Your task to perform on an android device: add a contact in the contacts app Image 0: 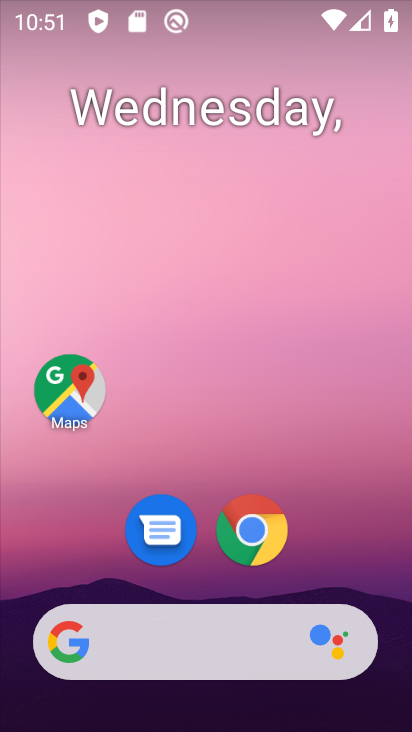
Step 0: drag from (165, 583) to (368, 2)
Your task to perform on an android device: add a contact in the contacts app Image 1: 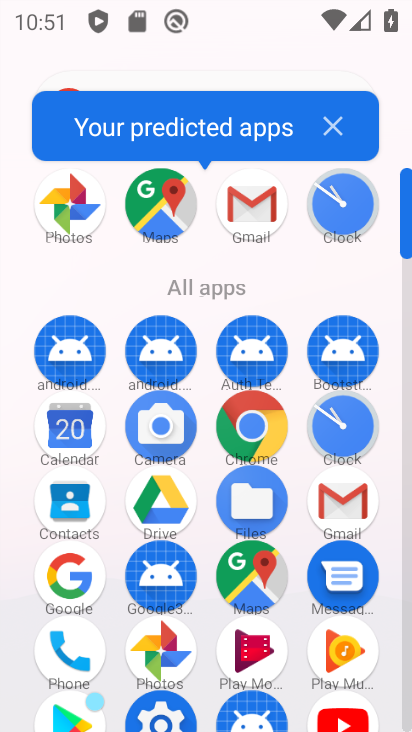
Step 1: click (81, 517)
Your task to perform on an android device: add a contact in the contacts app Image 2: 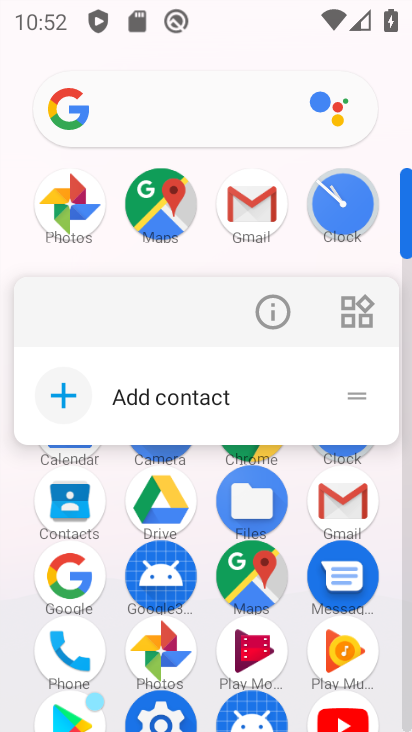
Step 2: click (94, 519)
Your task to perform on an android device: add a contact in the contacts app Image 3: 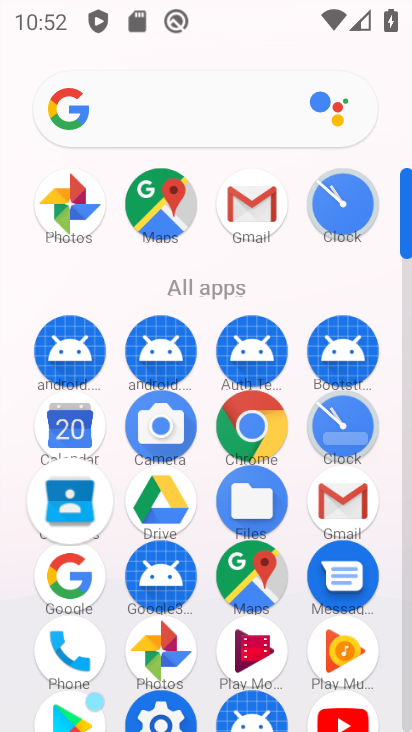
Step 3: click (90, 517)
Your task to perform on an android device: add a contact in the contacts app Image 4: 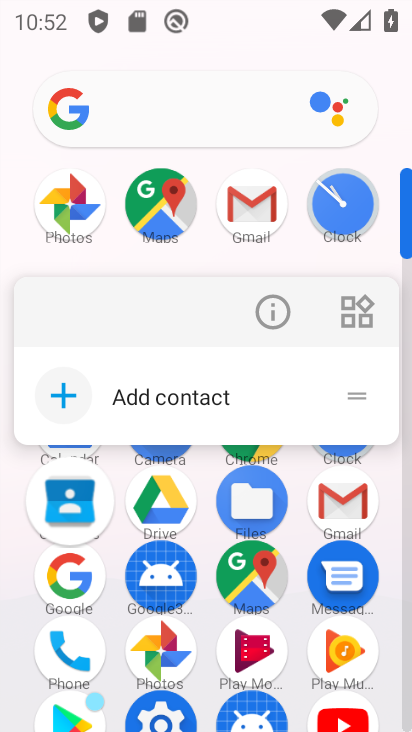
Step 4: click (82, 515)
Your task to perform on an android device: add a contact in the contacts app Image 5: 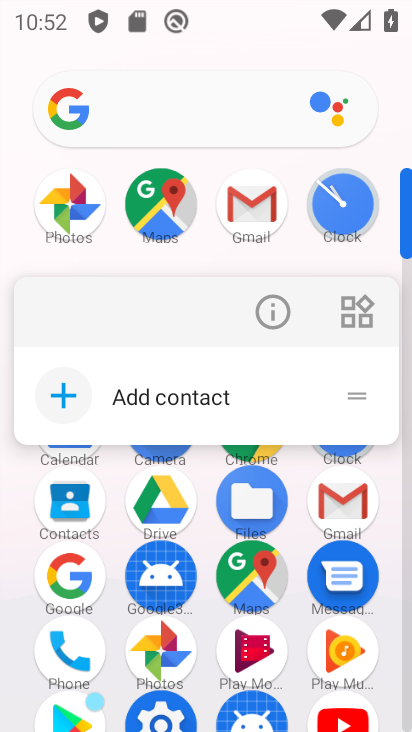
Step 5: click (100, 500)
Your task to perform on an android device: add a contact in the contacts app Image 6: 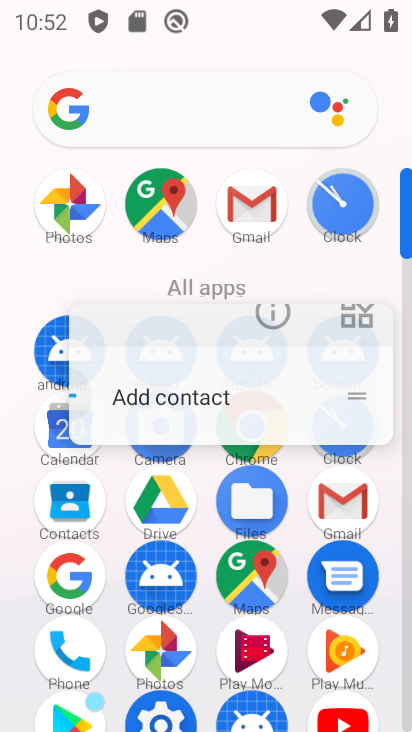
Step 6: click (83, 499)
Your task to perform on an android device: add a contact in the contacts app Image 7: 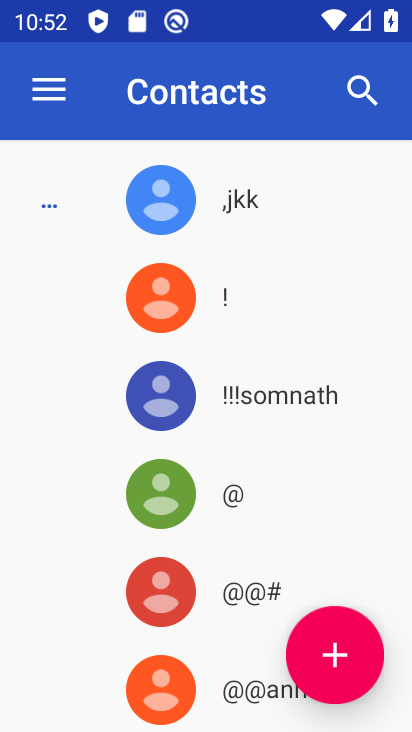
Step 7: click (338, 653)
Your task to perform on an android device: add a contact in the contacts app Image 8: 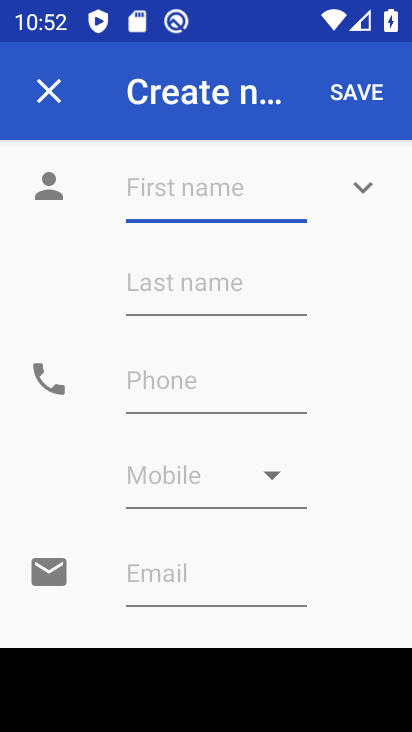
Step 8: type "miley "
Your task to perform on an android device: add a contact in the contacts app Image 9: 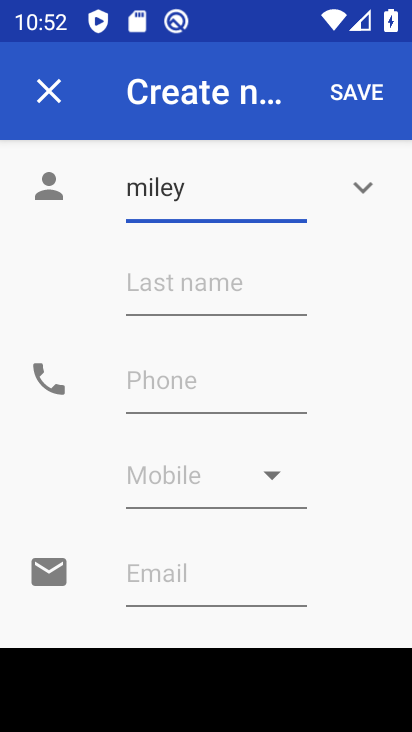
Step 9: click (177, 374)
Your task to perform on an android device: add a contact in the contacts app Image 10: 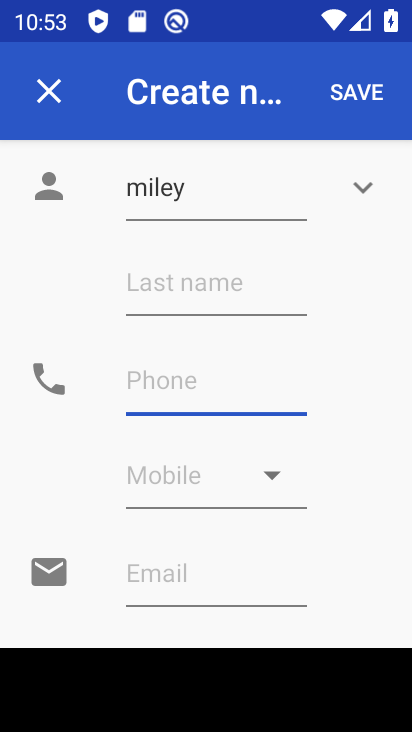
Step 10: type "233288121"
Your task to perform on an android device: add a contact in the contacts app Image 11: 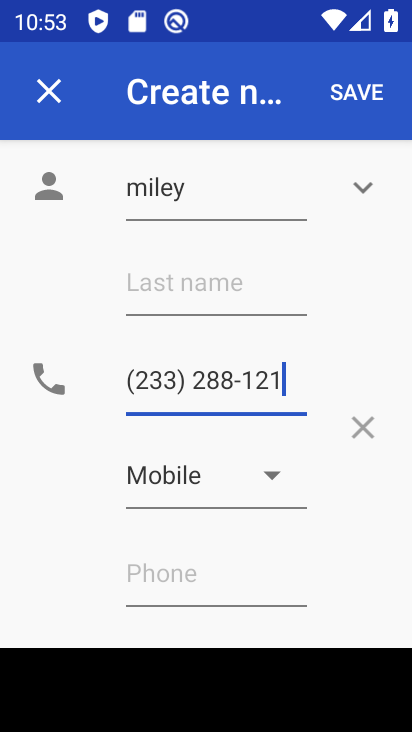
Step 11: click (381, 94)
Your task to perform on an android device: add a contact in the contacts app Image 12: 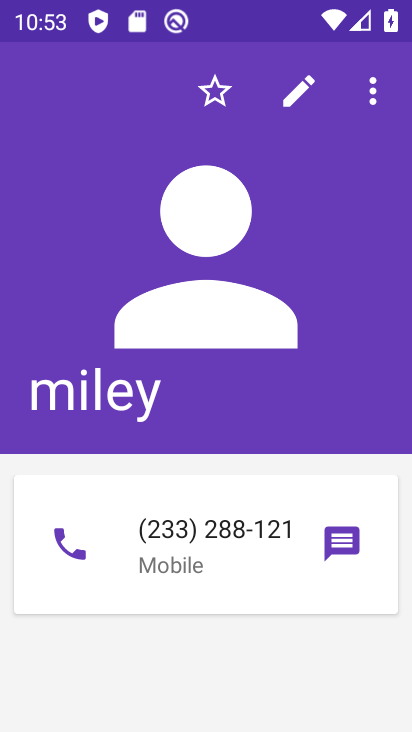
Step 12: task complete